Your task to perform on an android device: Open the calendar and show me this week's events? Image 0: 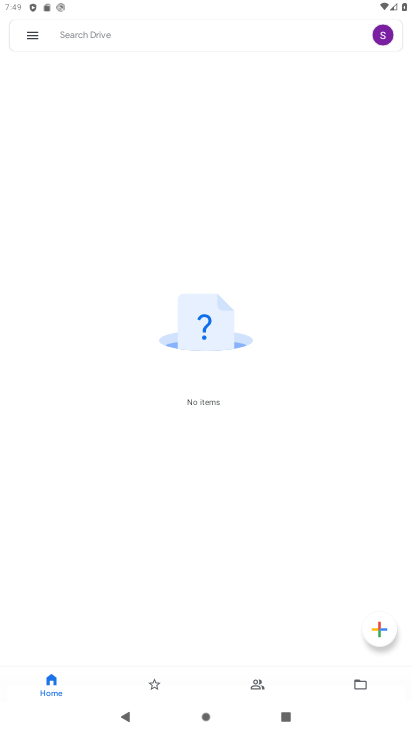
Step 0: press home button
Your task to perform on an android device: Open the calendar and show me this week's events? Image 1: 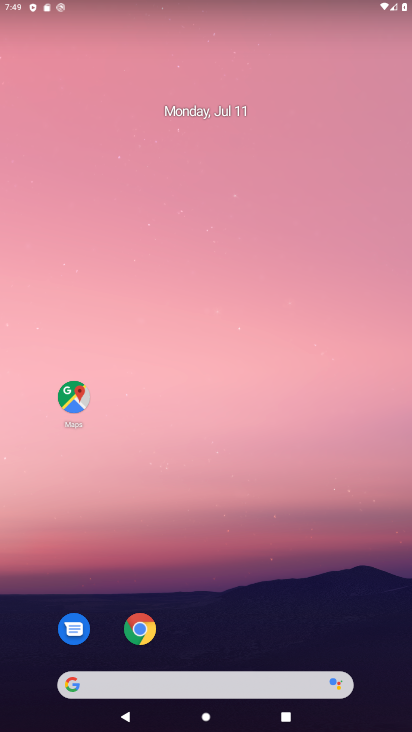
Step 1: drag from (239, 650) to (156, 73)
Your task to perform on an android device: Open the calendar and show me this week's events? Image 2: 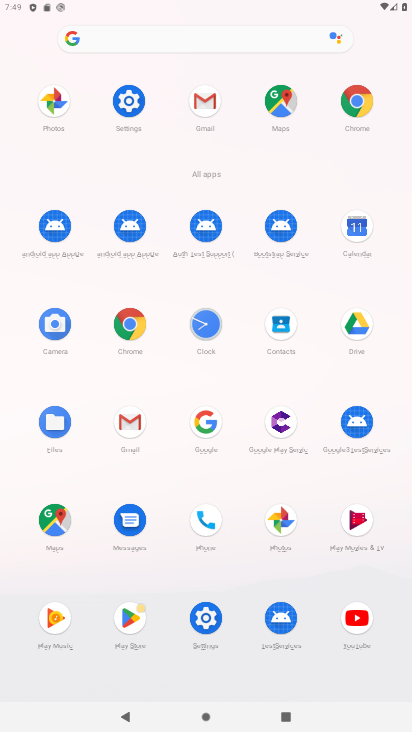
Step 2: click (361, 228)
Your task to perform on an android device: Open the calendar and show me this week's events? Image 3: 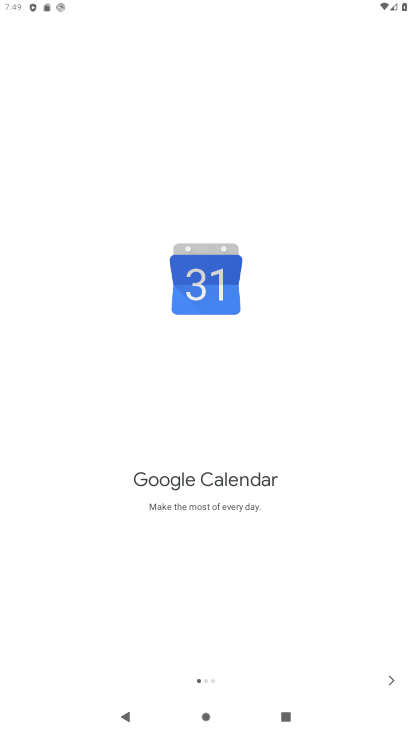
Step 3: click (396, 681)
Your task to perform on an android device: Open the calendar and show me this week's events? Image 4: 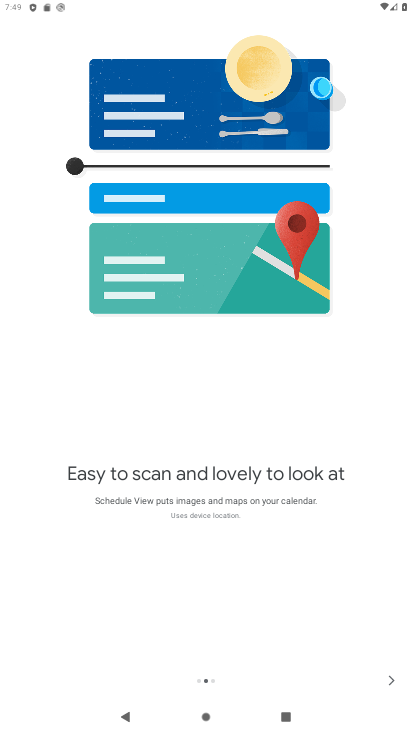
Step 4: click (396, 681)
Your task to perform on an android device: Open the calendar and show me this week's events? Image 5: 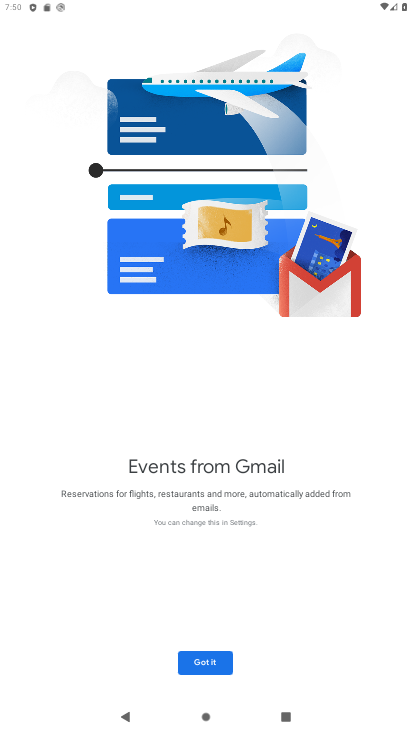
Step 5: click (206, 669)
Your task to perform on an android device: Open the calendar and show me this week's events? Image 6: 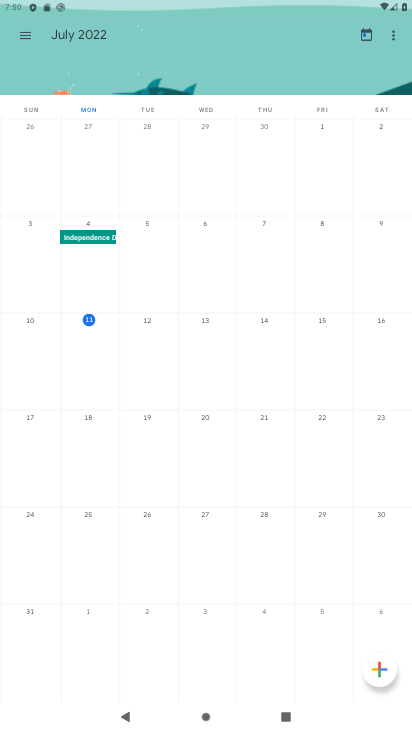
Step 6: click (21, 40)
Your task to perform on an android device: Open the calendar and show me this week's events? Image 7: 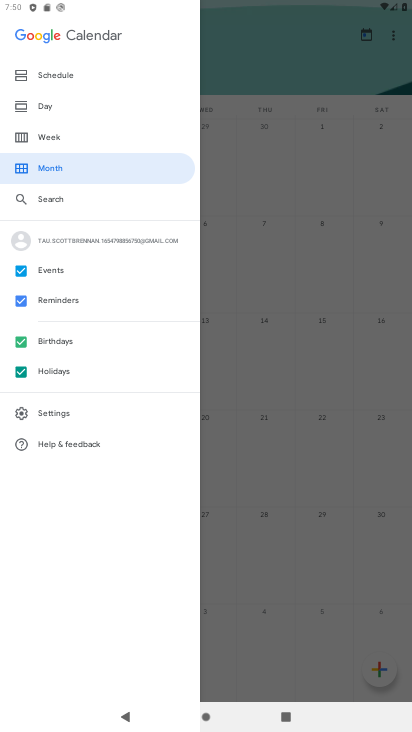
Step 7: click (65, 132)
Your task to perform on an android device: Open the calendar and show me this week's events? Image 8: 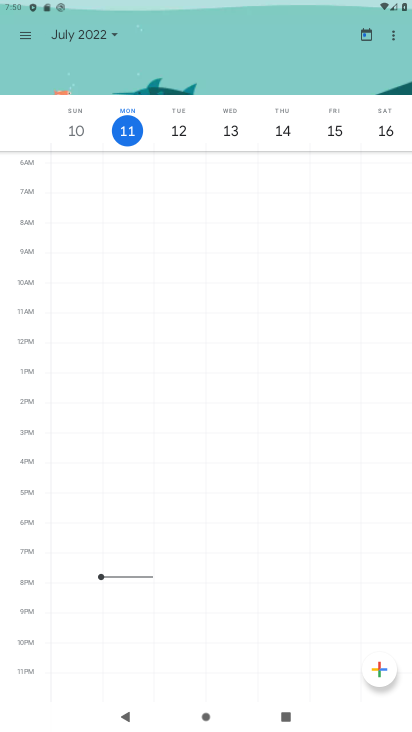
Step 8: task complete